Your task to perform on an android device: Open Amazon Image 0: 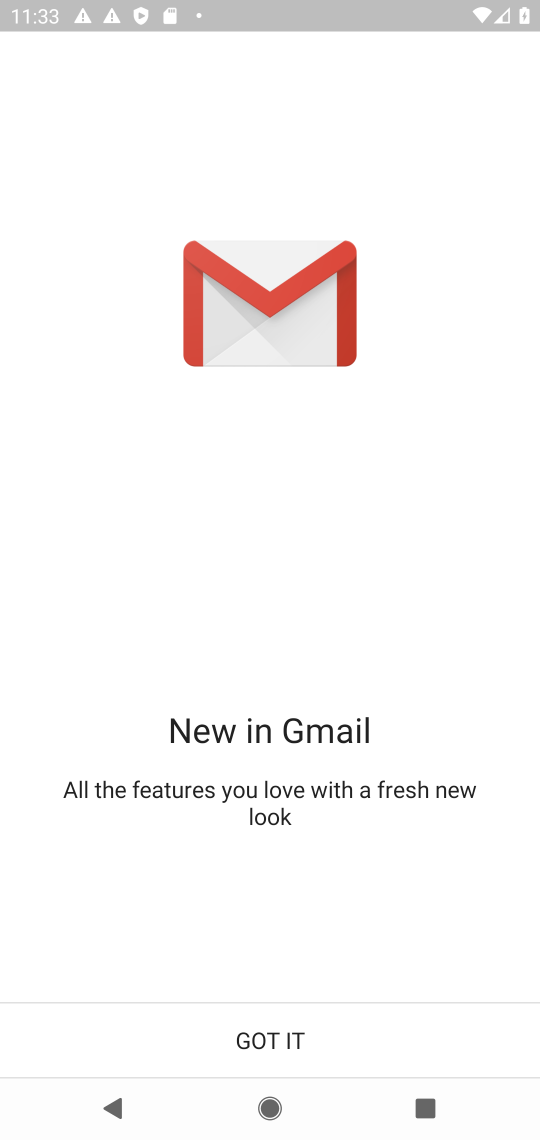
Step 0: press home button
Your task to perform on an android device: Open Amazon Image 1: 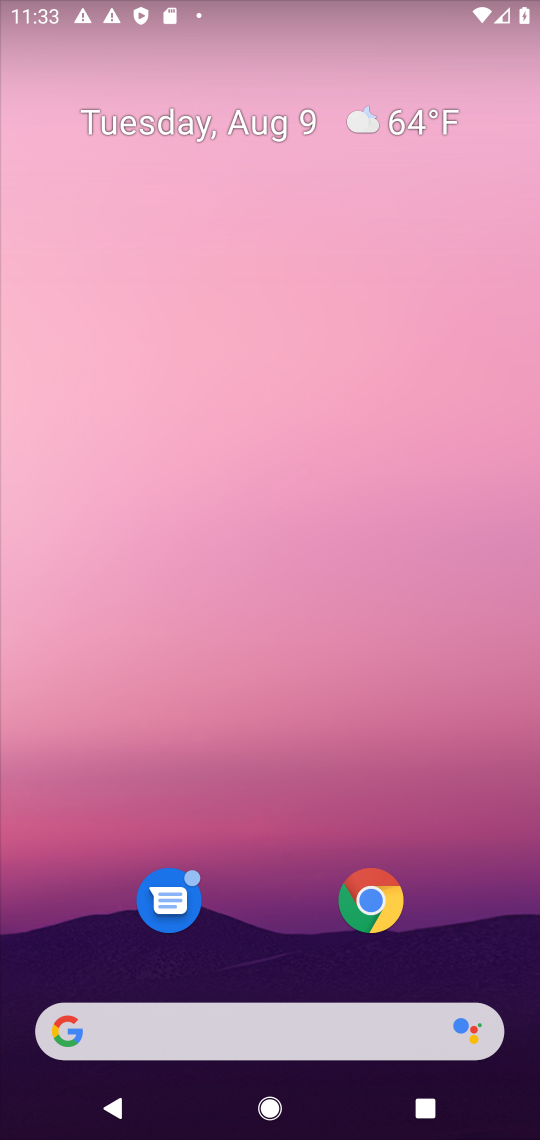
Step 1: click (376, 902)
Your task to perform on an android device: Open Amazon Image 2: 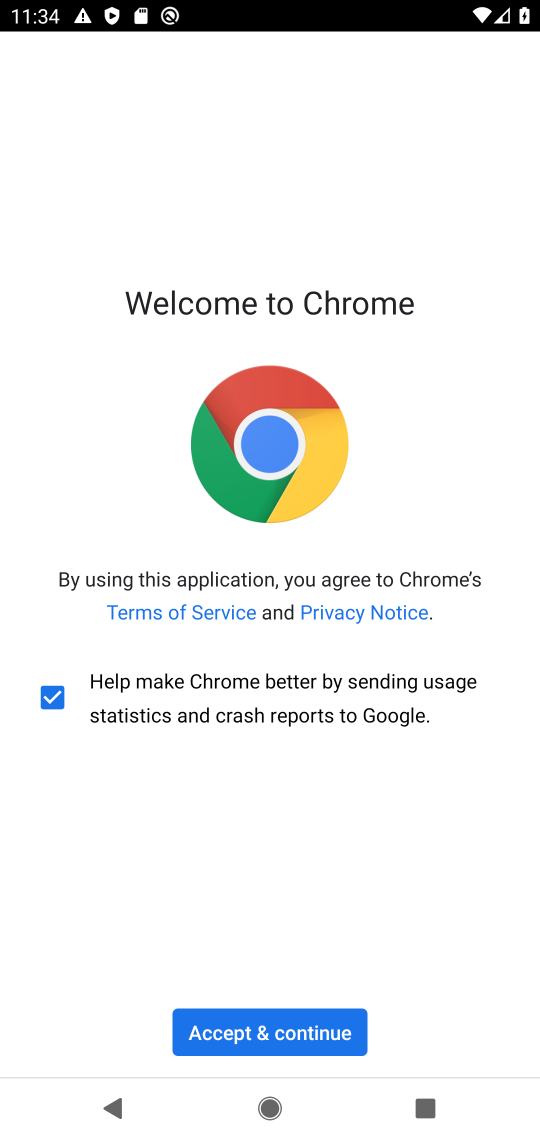
Step 2: click (326, 1018)
Your task to perform on an android device: Open Amazon Image 3: 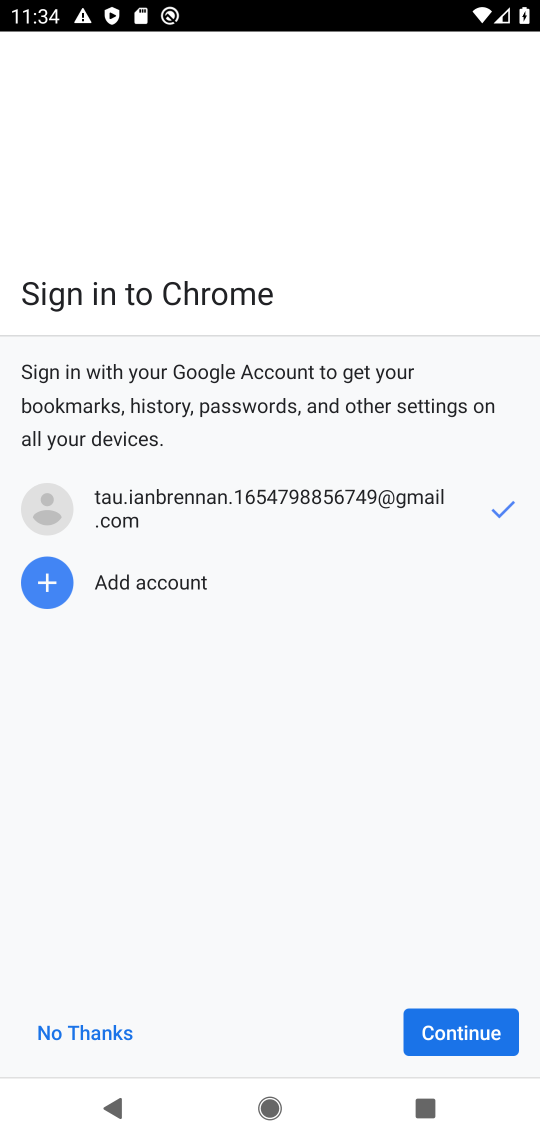
Step 3: click (469, 1032)
Your task to perform on an android device: Open Amazon Image 4: 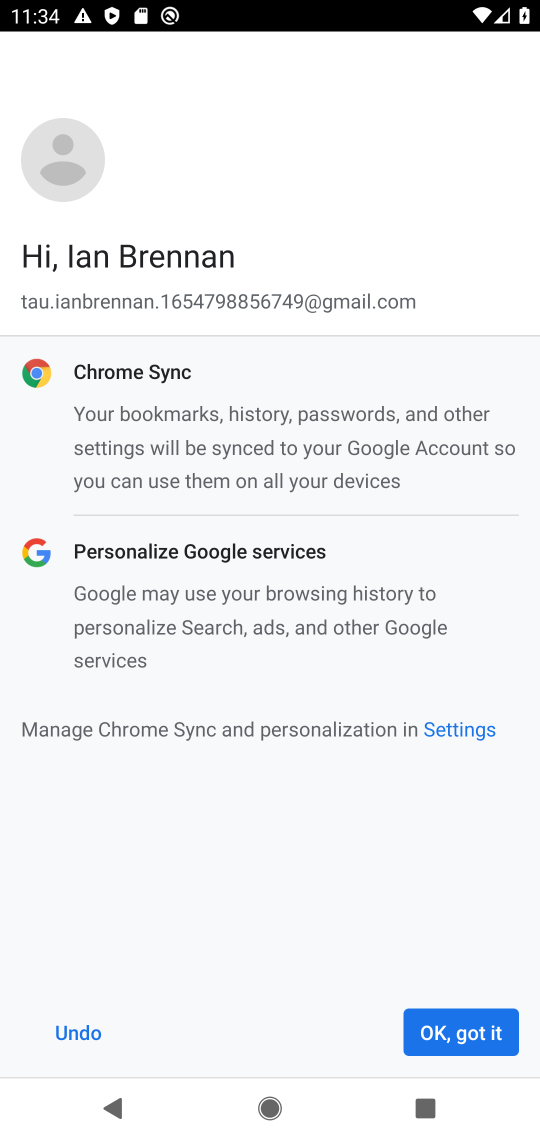
Step 4: click (469, 1028)
Your task to perform on an android device: Open Amazon Image 5: 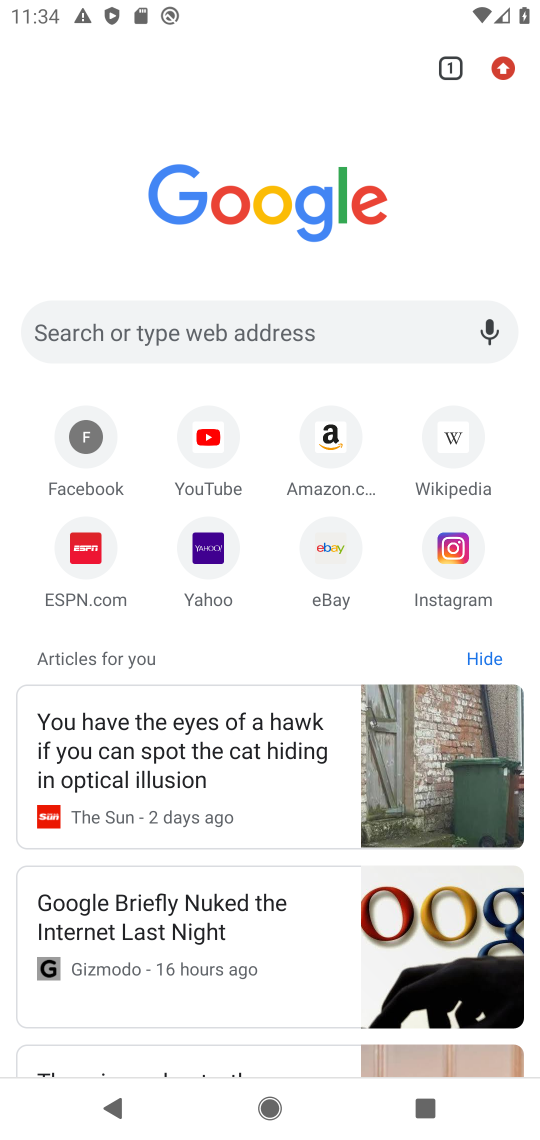
Step 5: click (325, 424)
Your task to perform on an android device: Open Amazon Image 6: 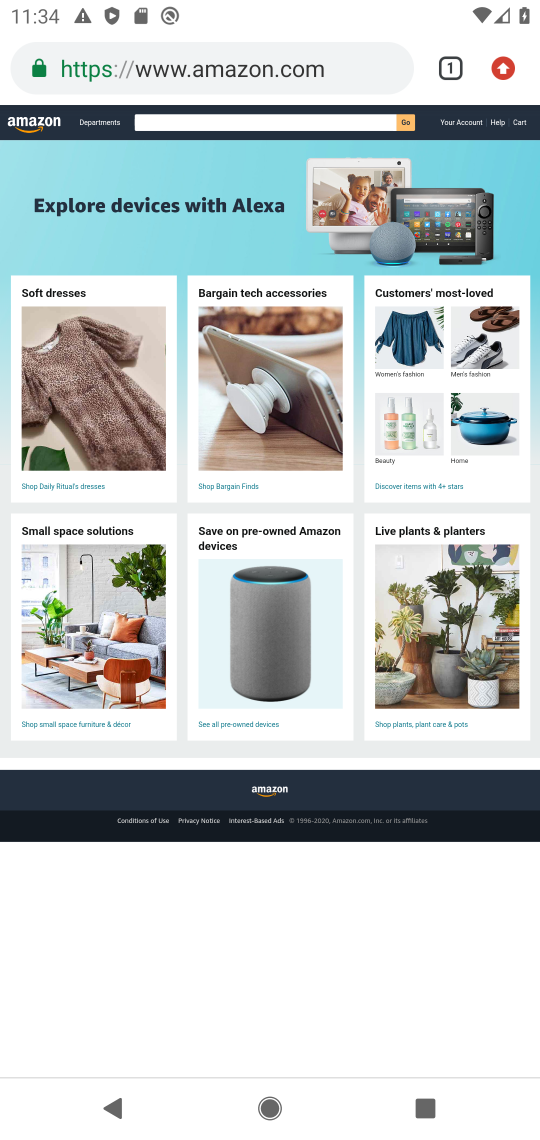
Step 6: task complete